Your task to perform on an android device: change timer sound Image 0: 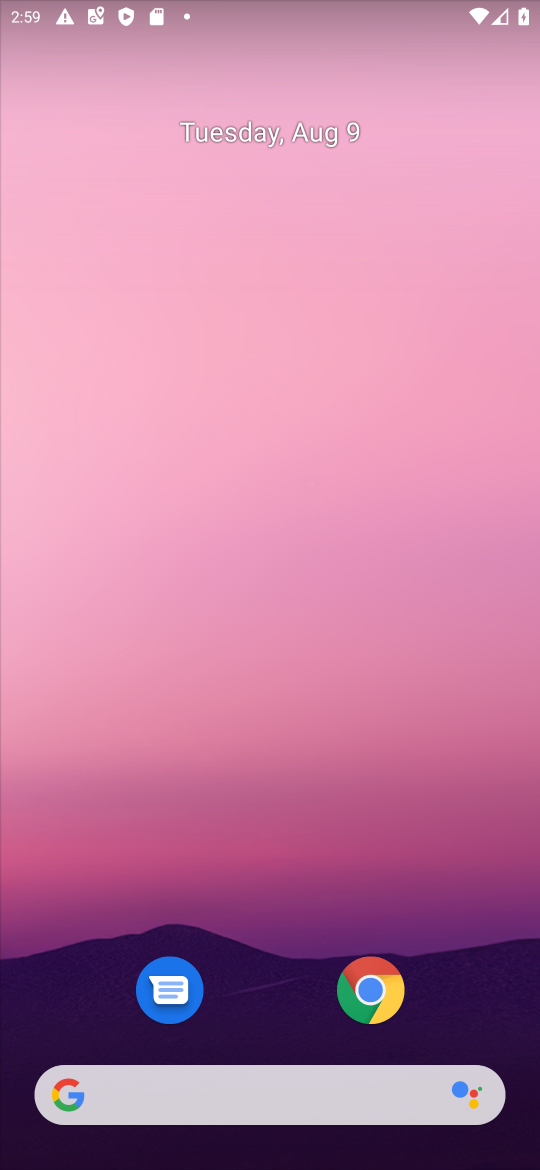
Step 0: drag from (246, 1098) to (61, 50)
Your task to perform on an android device: change timer sound Image 1: 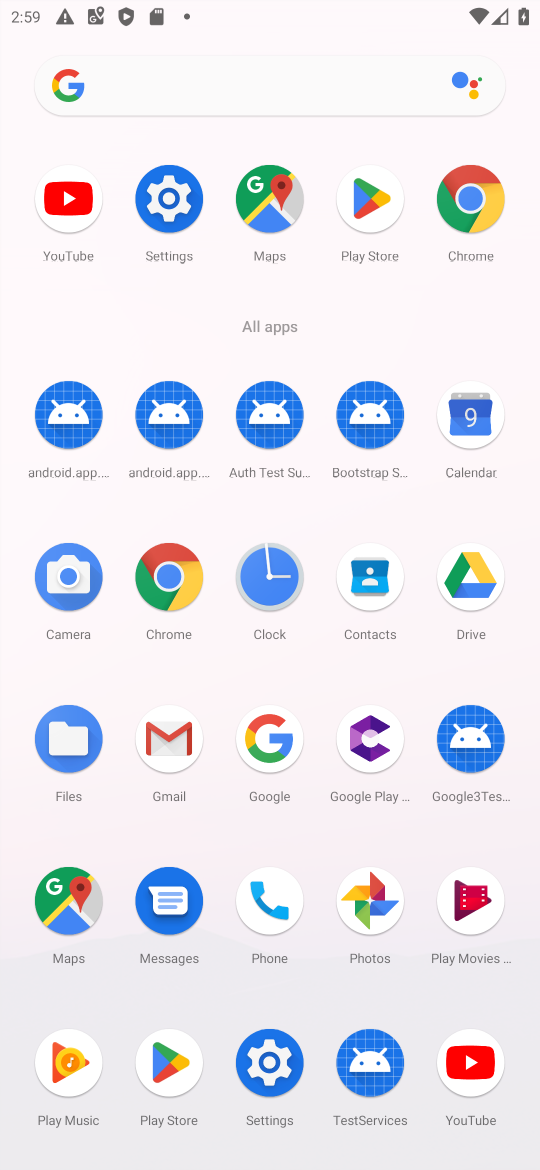
Step 1: click (262, 573)
Your task to perform on an android device: change timer sound Image 2: 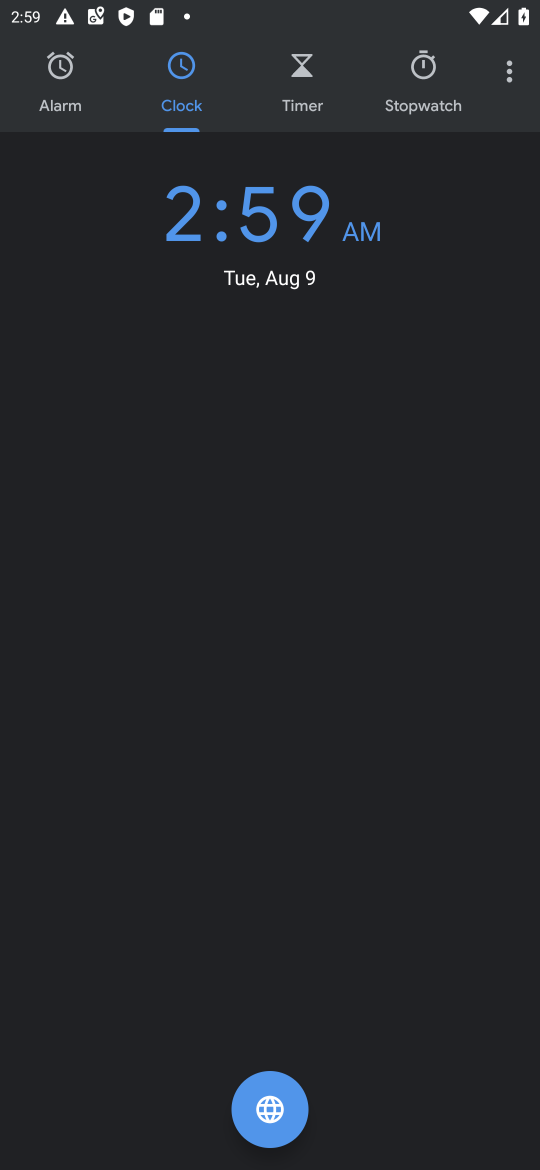
Step 2: click (515, 69)
Your task to perform on an android device: change timer sound Image 3: 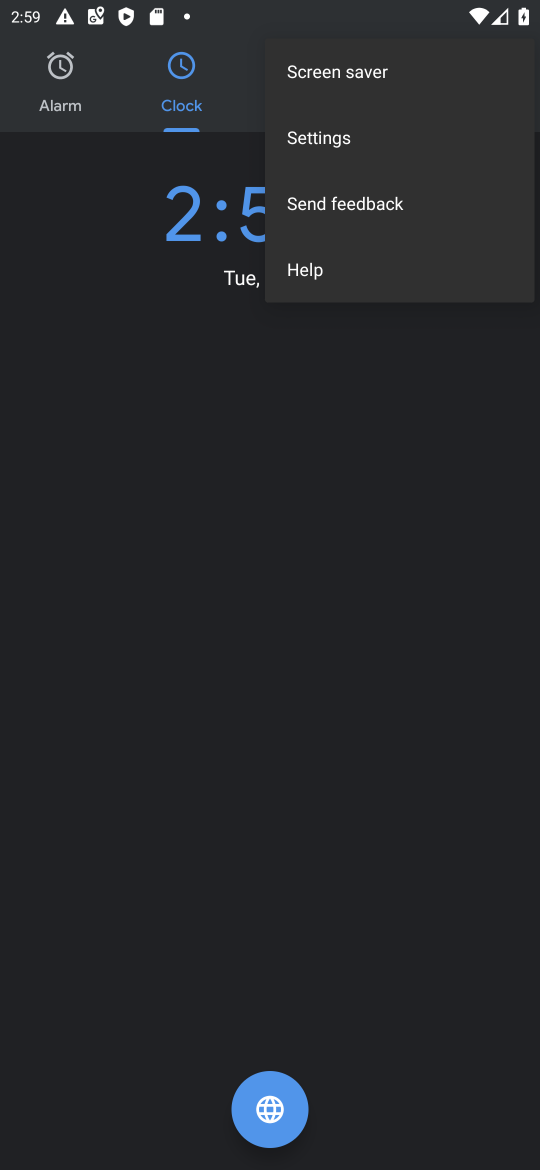
Step 3: click (332, 126)
Your task to perform on an android device: change timer sound Image 4: 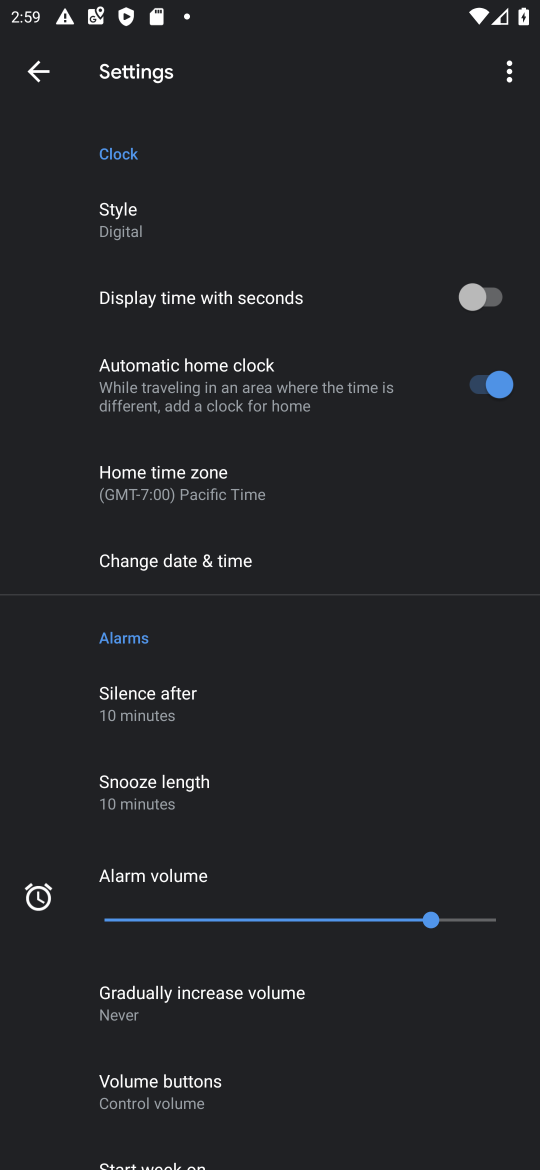
Step 4: click (357, 1049)
Your task to perform on an android device: change timer sound Image 5: 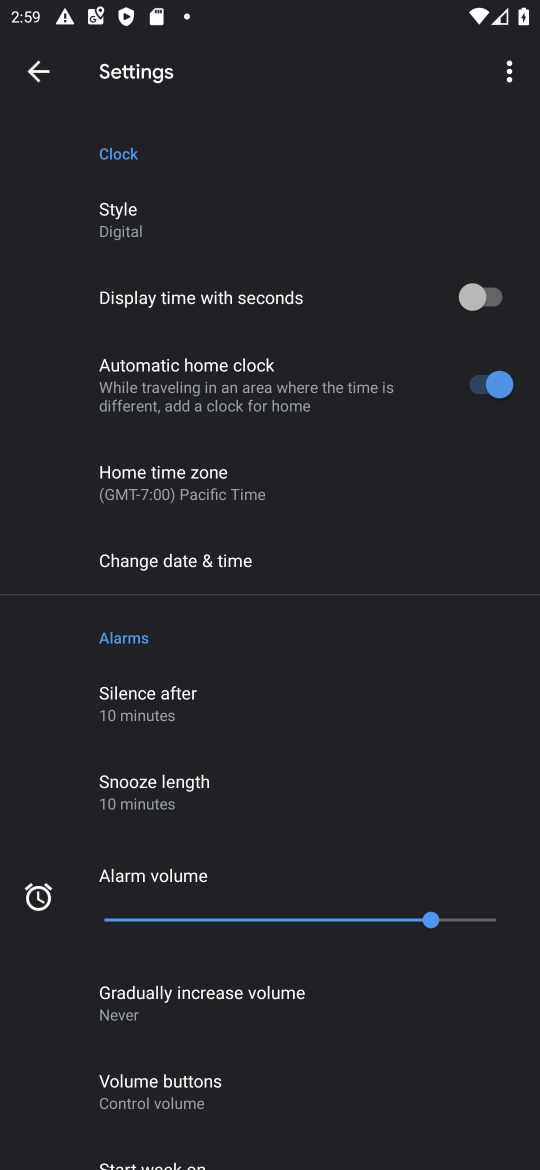
Step 5: drag from (357, 1049) to (339, 185)
Your task to perform on an android device: change timer sound Image 6: 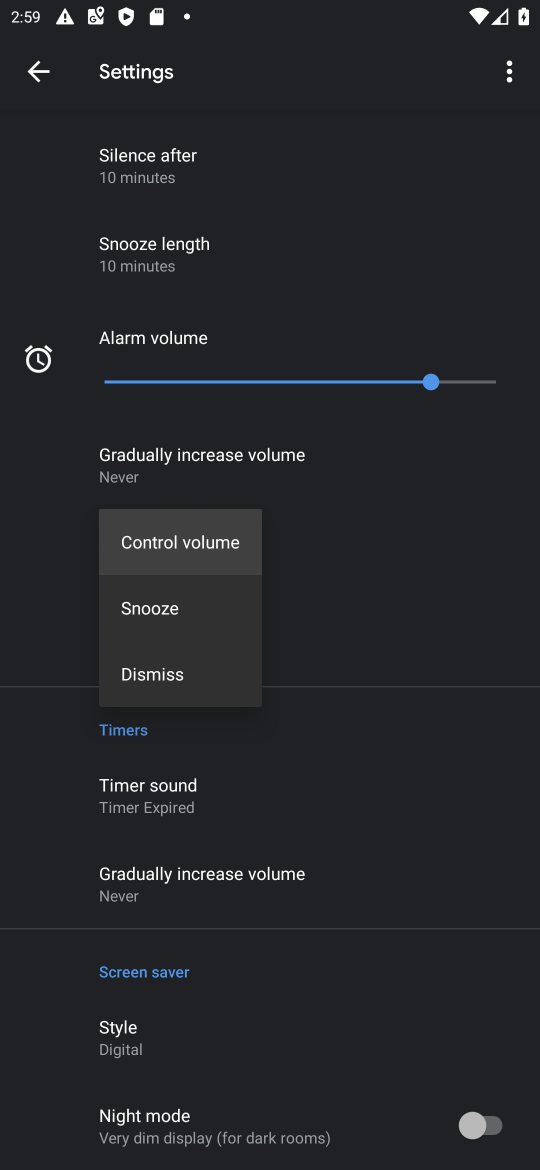
Step 6: click (211, 782)
Your task to perform on an android device: change timer sound Image 7: 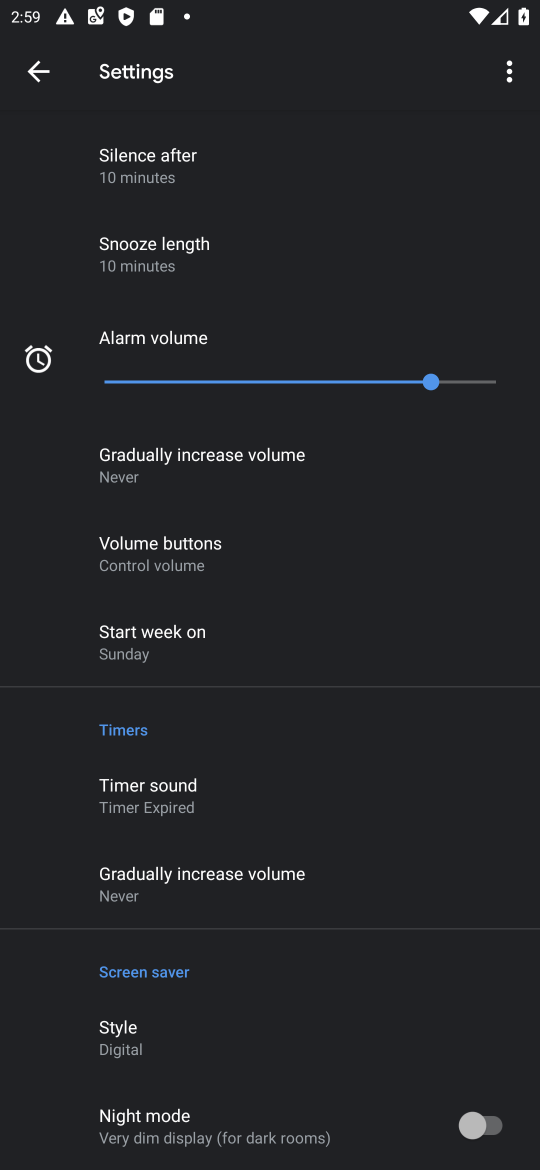
Step 7: task complete